Your task to perform on an android device: Clear the cart on amazon.com. Search for dell xps on amazon.com, select the first entry, and add it to the cart. Image 0: 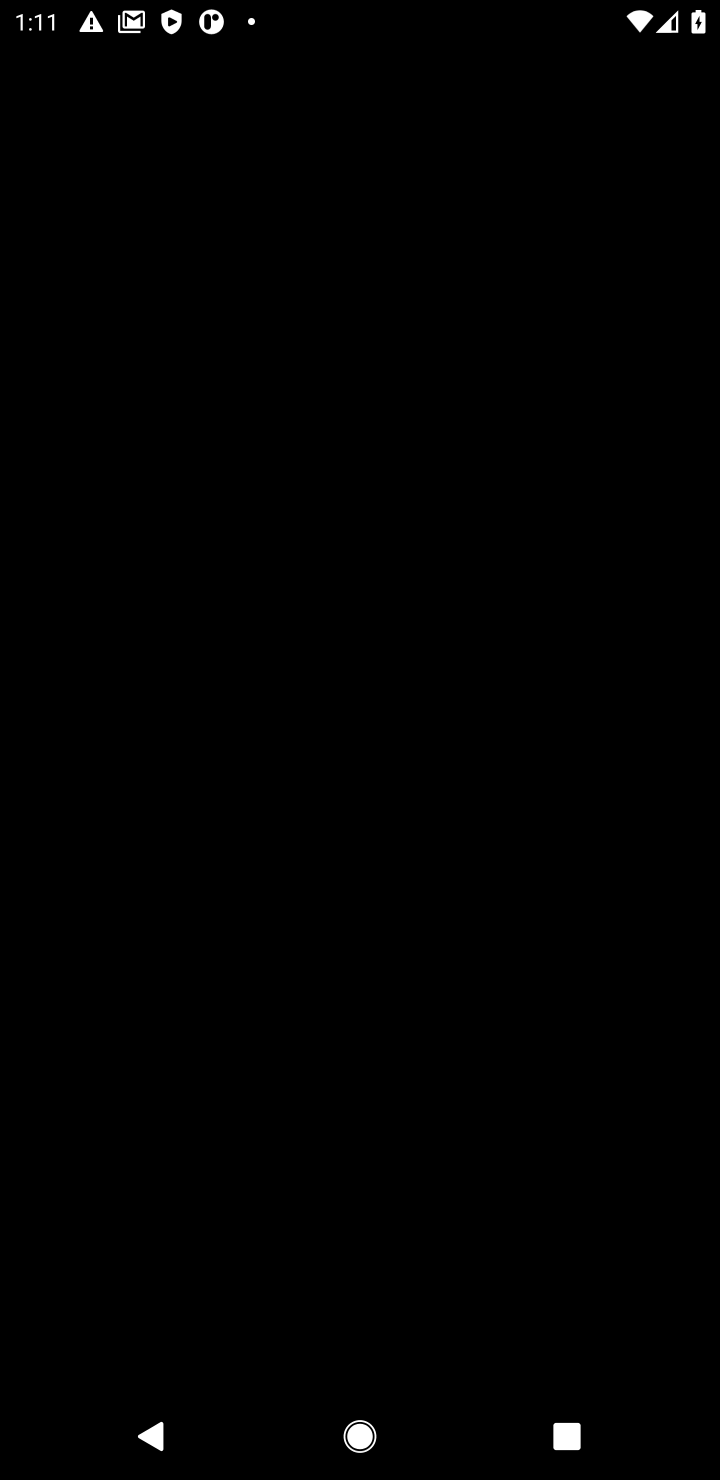
Step 0: press home button
Your task to perform on an android device: Clear the cart on amazon.com. Search for dell xps on amazon.com, select the first entry, and add it to the cart. Image 1: 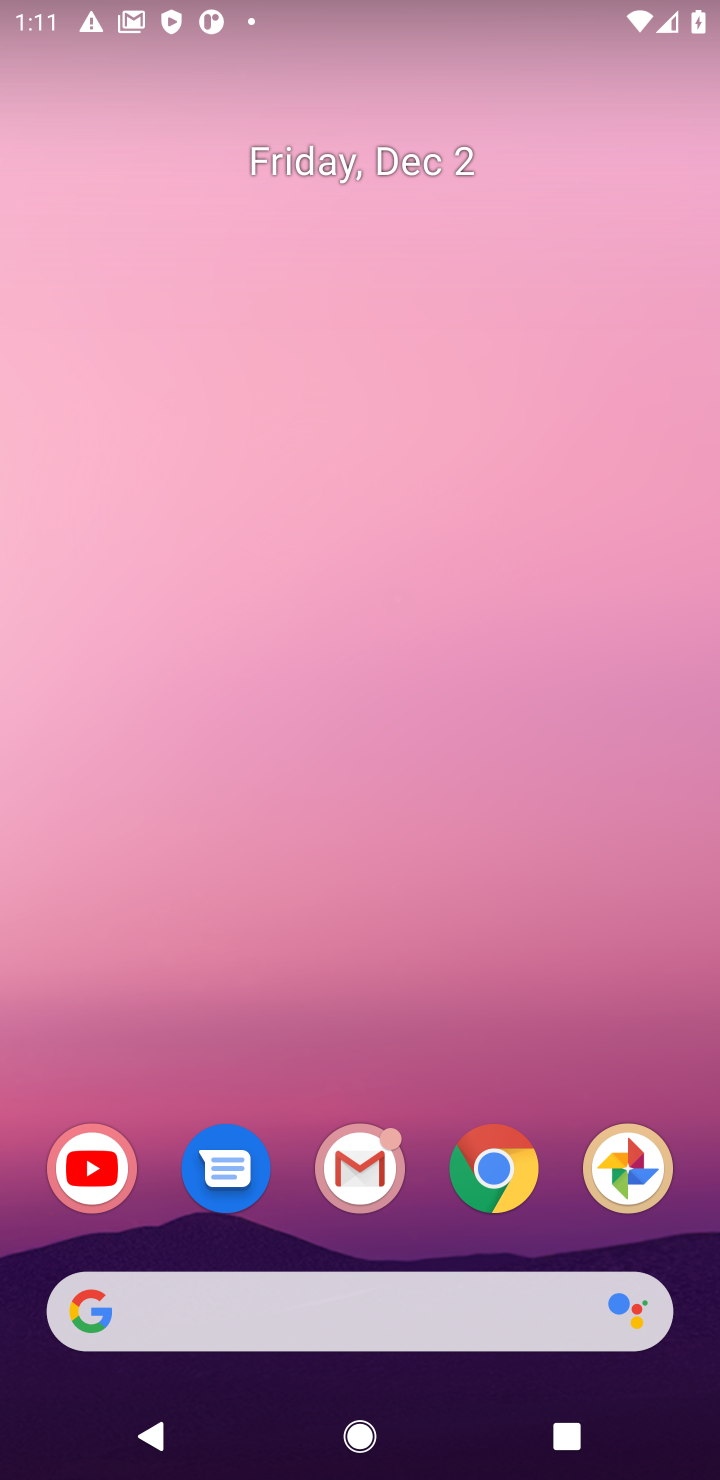
Step 1: click (499, 1184)
Your task to perform on an android device: Clear the cart on amazon.com. Search for dell xps on amazon.com, select the first entry, and add it to the cart. Image 2: 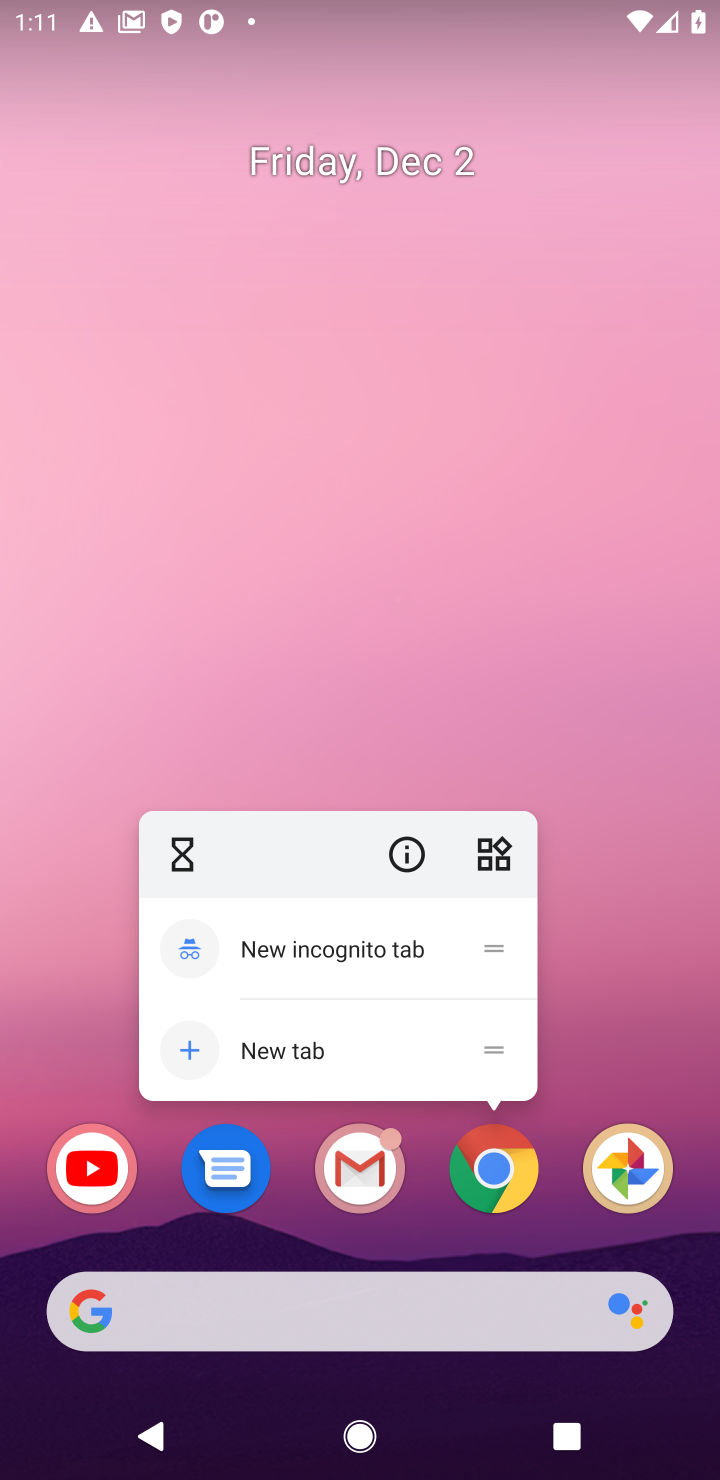
Step 2: click (499, 1184)
Your task to perform on an android device: Clear the cart on amazon.com. Search for dell xps on amazon.com, select the first entry, and add it to the cart. Image 3: 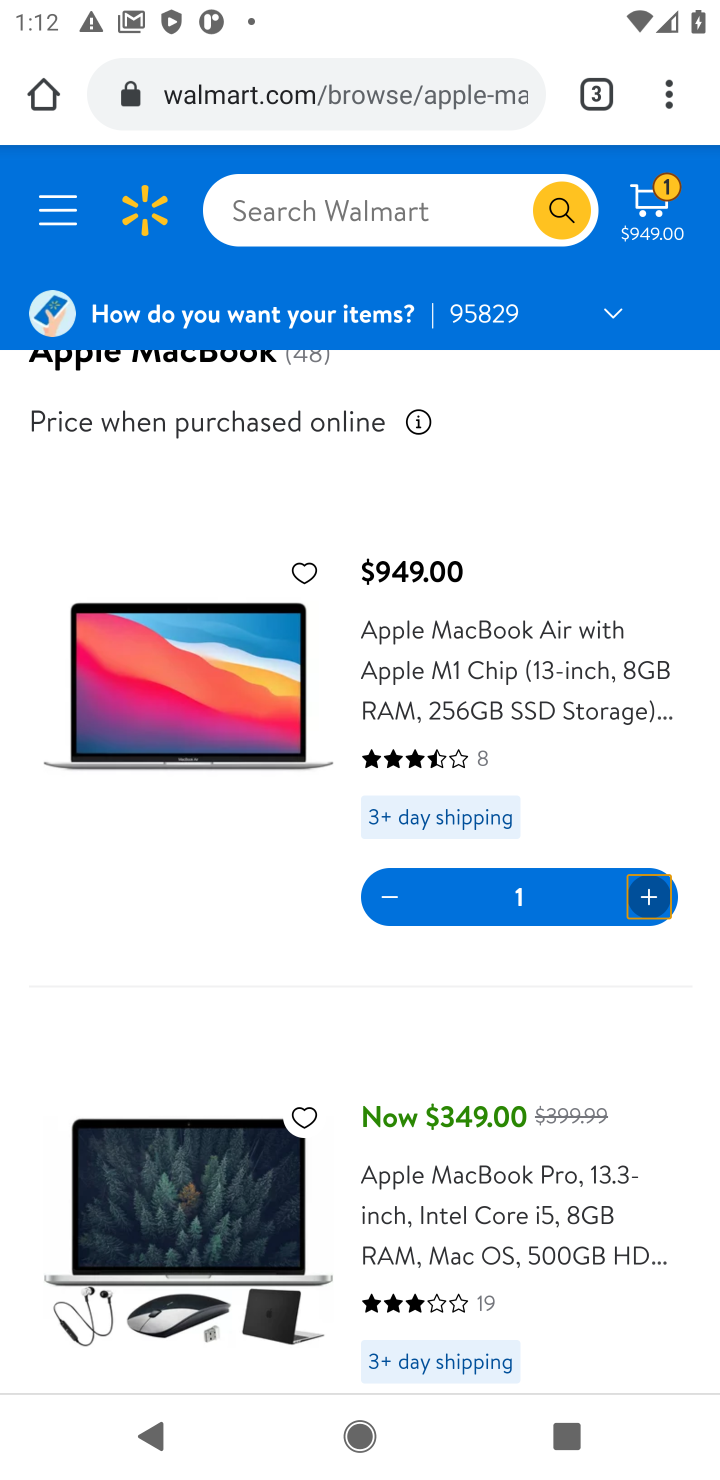
Step 3: click (336, 103)
Your task to perform on an android device: Clear the cart on amazon.com. Search for dell xps on amazon.com, select the first entry, and add it to the cart. Image 4: 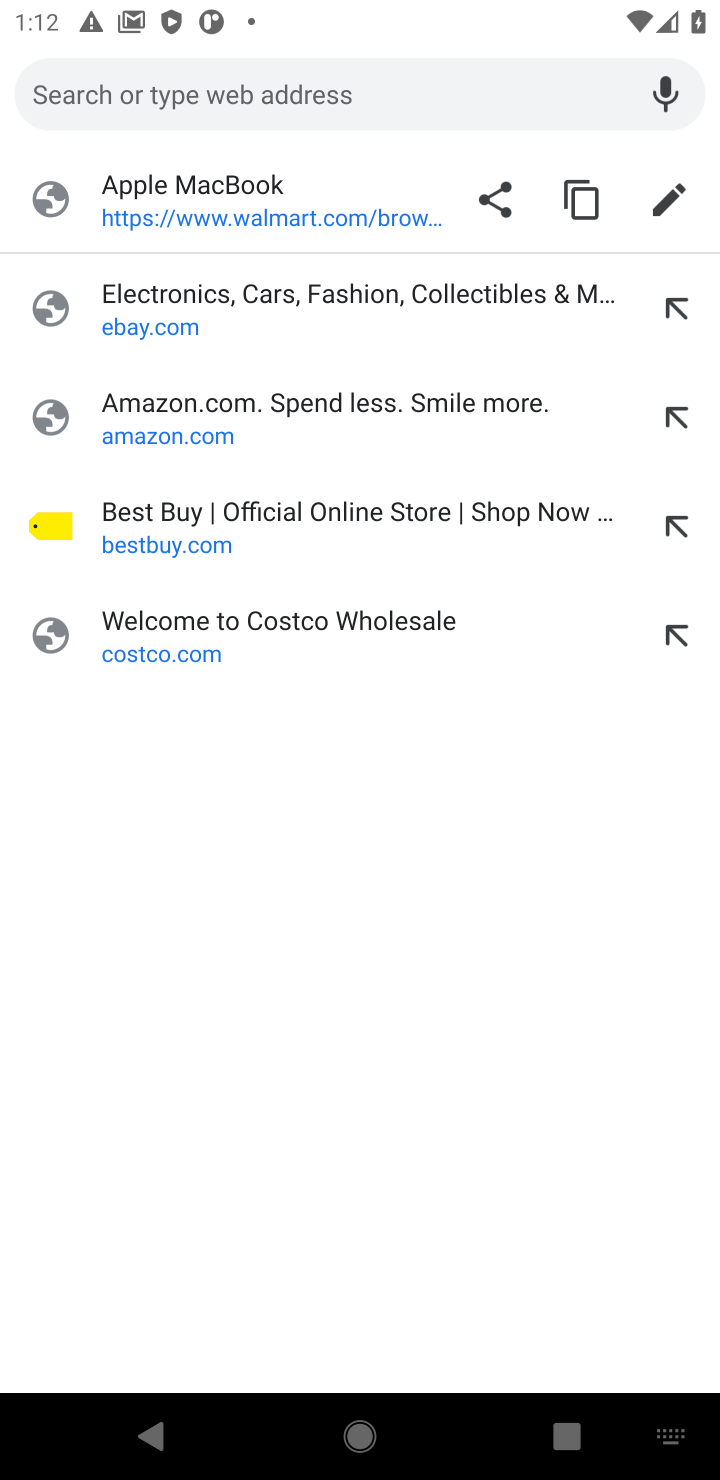
Step 4: click (150, 418)
Your task to perform on an android device: Clear the cart on amazon.com. Search for dell xps on amazon.com, select the first entry, and add it to the cart. Image 5: 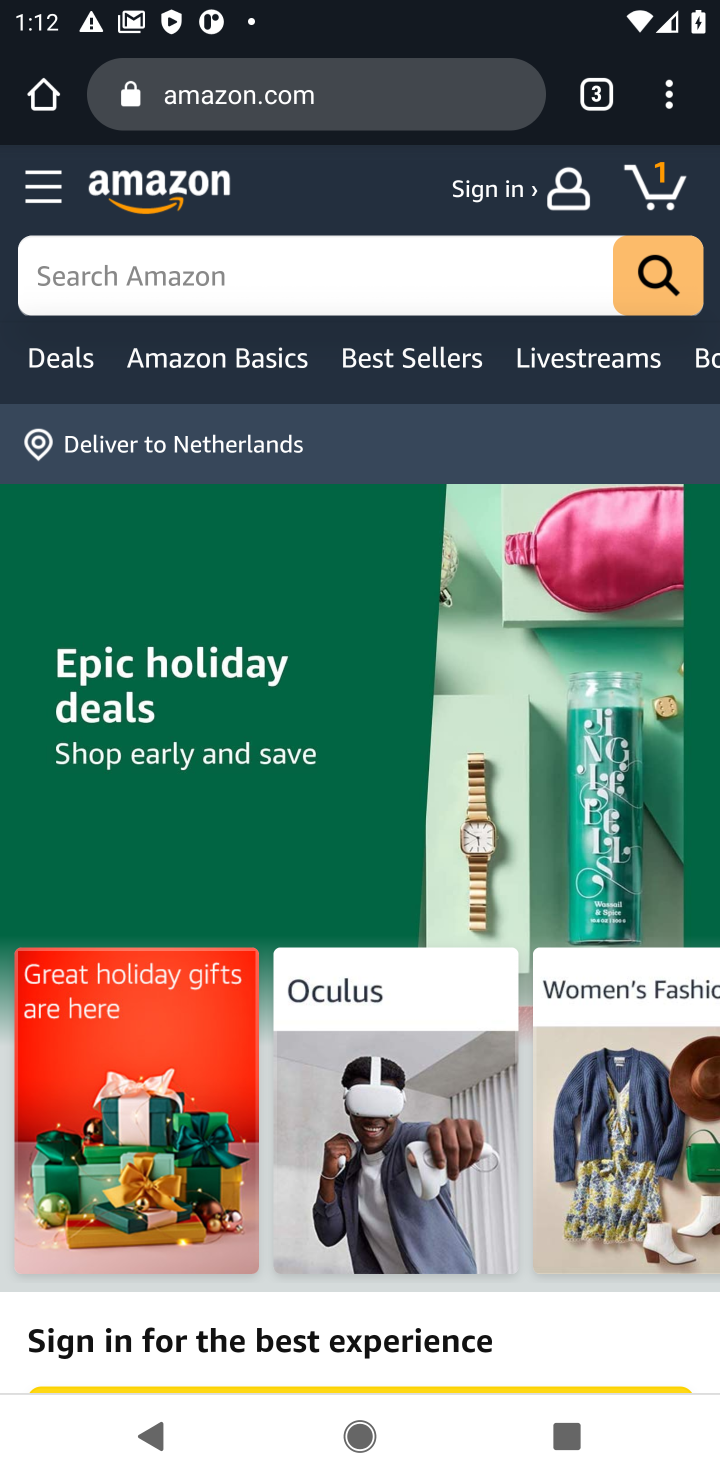
Step 5: click (658, 173)
Your task to perform on an android device: Clear the cart on amazon.com. Search for dell xps on amazon.com, select the first entry, and add it to the cart. Image 6: 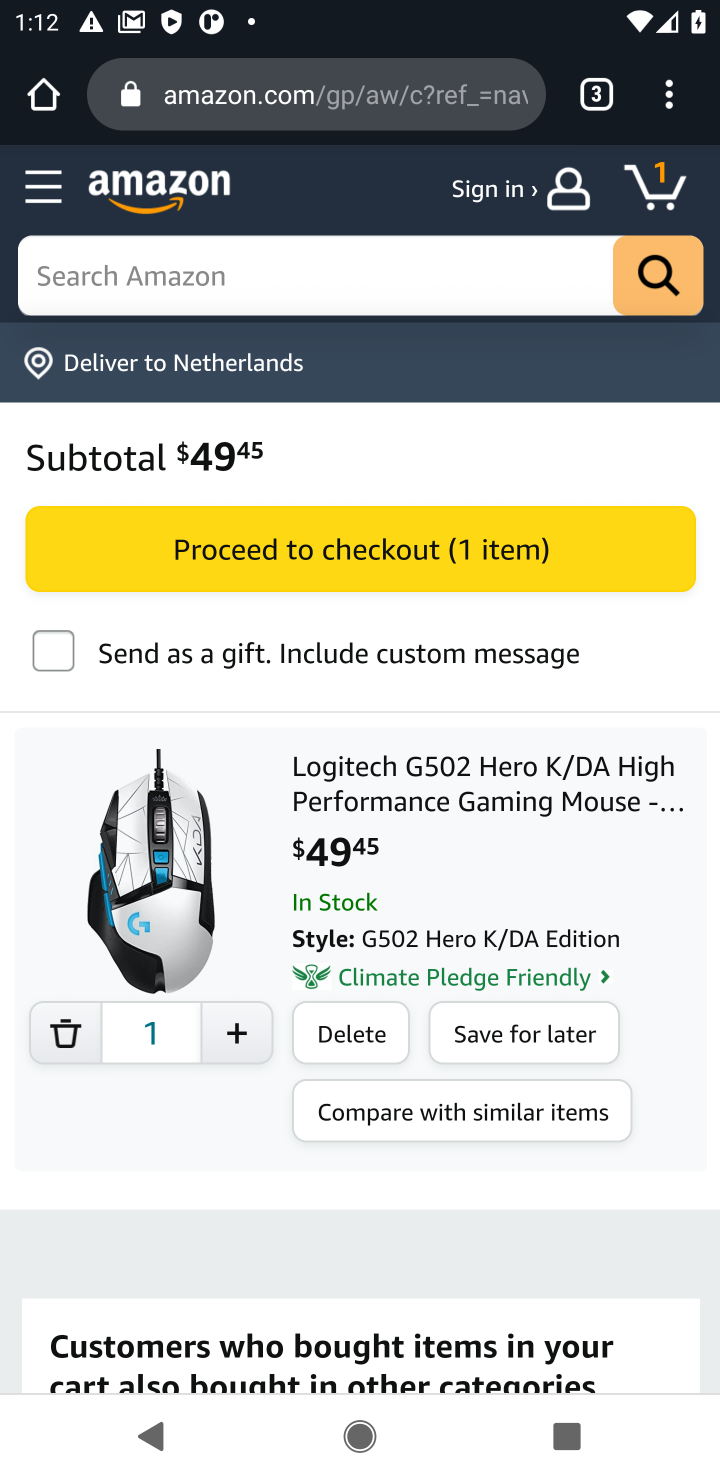
Step 6: click (343, 1041)
Your task to perform on an android device: Clear the cart on amazon.com. Search for dell xps on amazon.com, select the first entry, and add it to the cart. Image 7: 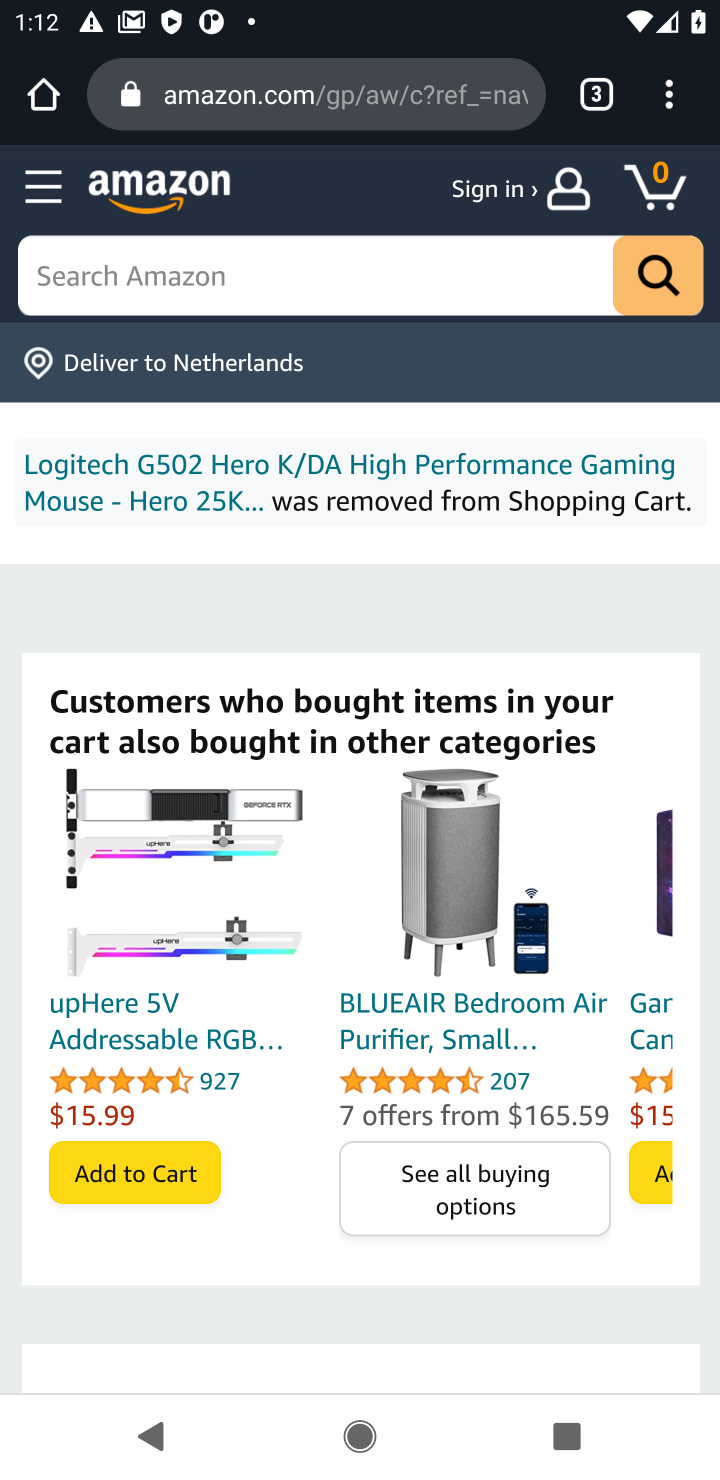
Step 7: click (216, 298)
Your task to perform on an android device: Clear the cart on amazon.com. Search for dell xps on amazon.com, select the first entry, and add it to the cart. Image 8: 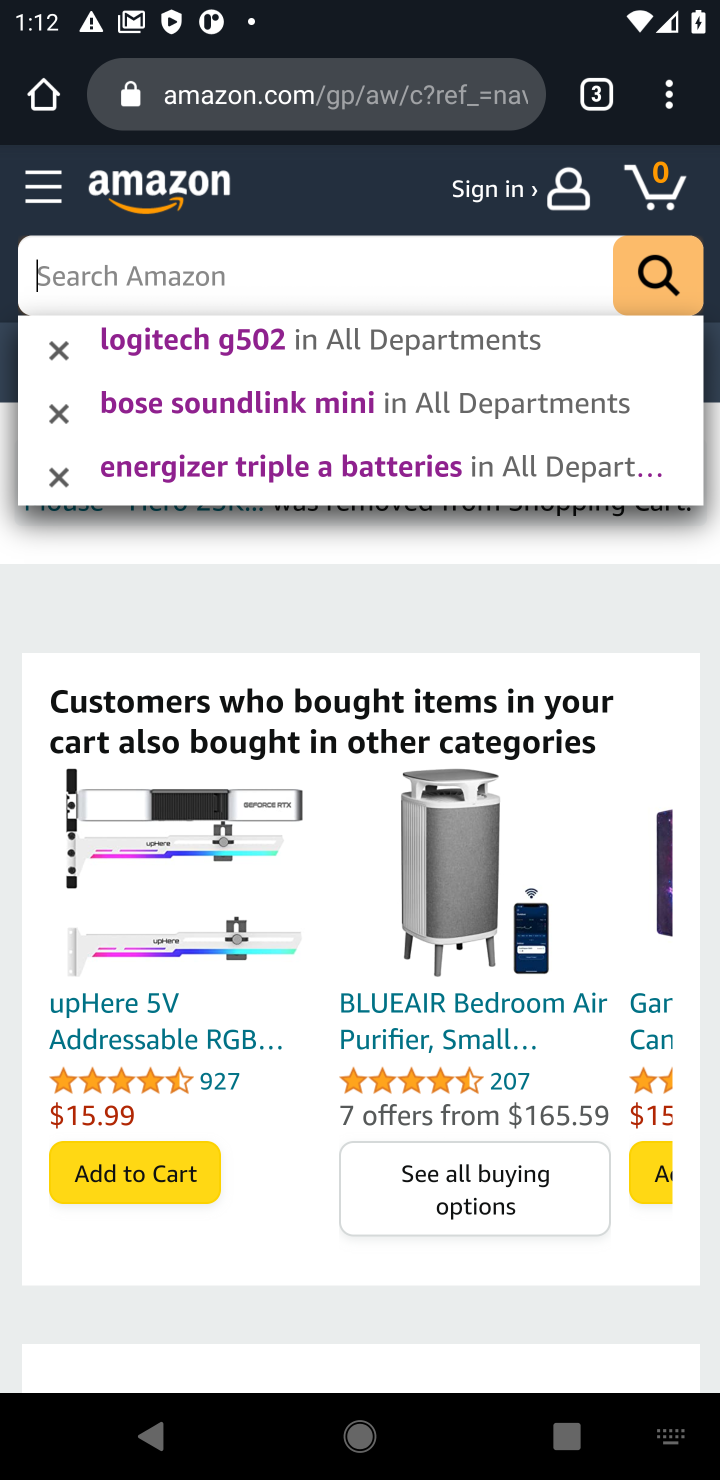
Step 8: type "dell xps"
Your task to perform on an android device: Clear the cart on amazon.com. Search for dell xps on amazon.com, select the first entry, and add it to the cart. Image 9: 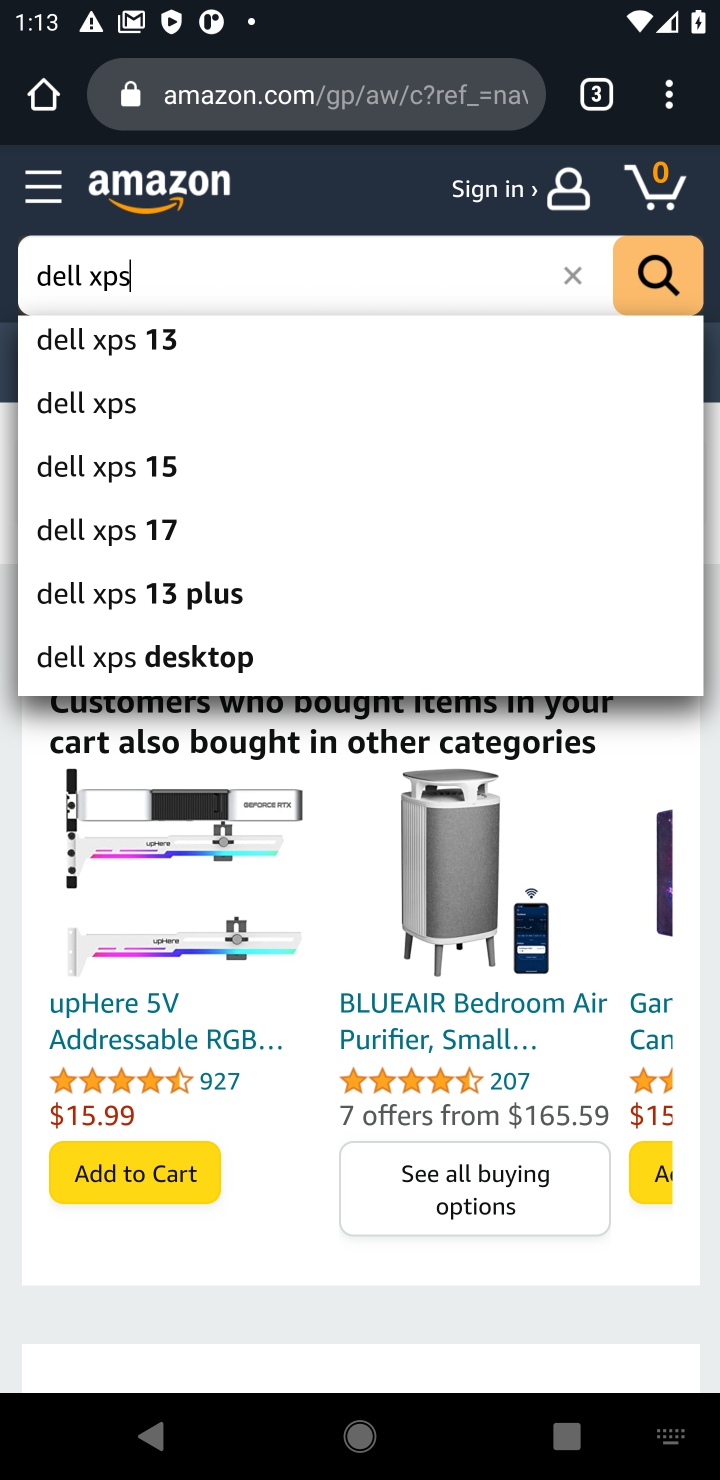
Step 9: click (84, 421)
Your task to perform on an android device: Clear the cart on amazon.com. Search for dell xps on amazon.com, select the first entry, and add it to the cart. Image 10: 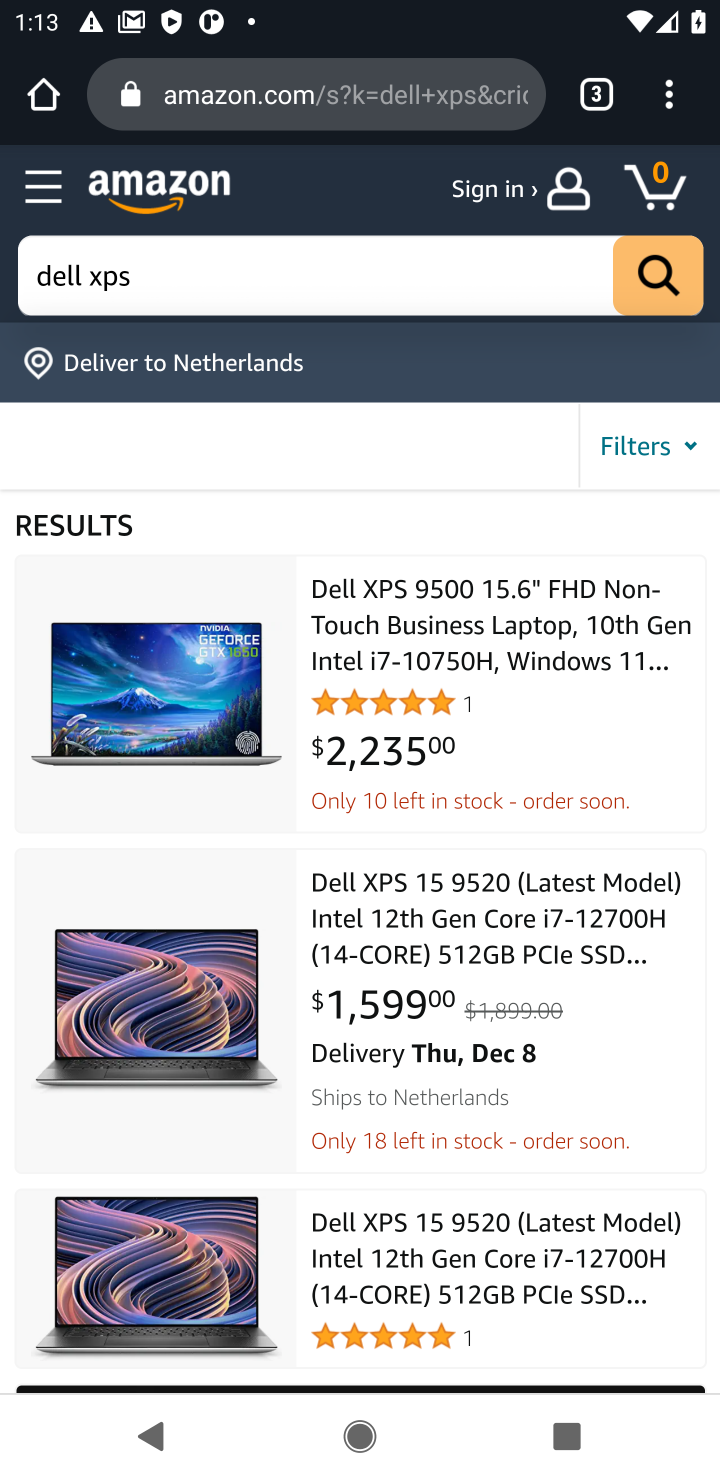
Step 10: click (434, 656)
Your task to perform on an android device: Clear the cart on amazon.com. Search for dell xps on amazon.com, select the first entry, and add it to the cart. Image 11: 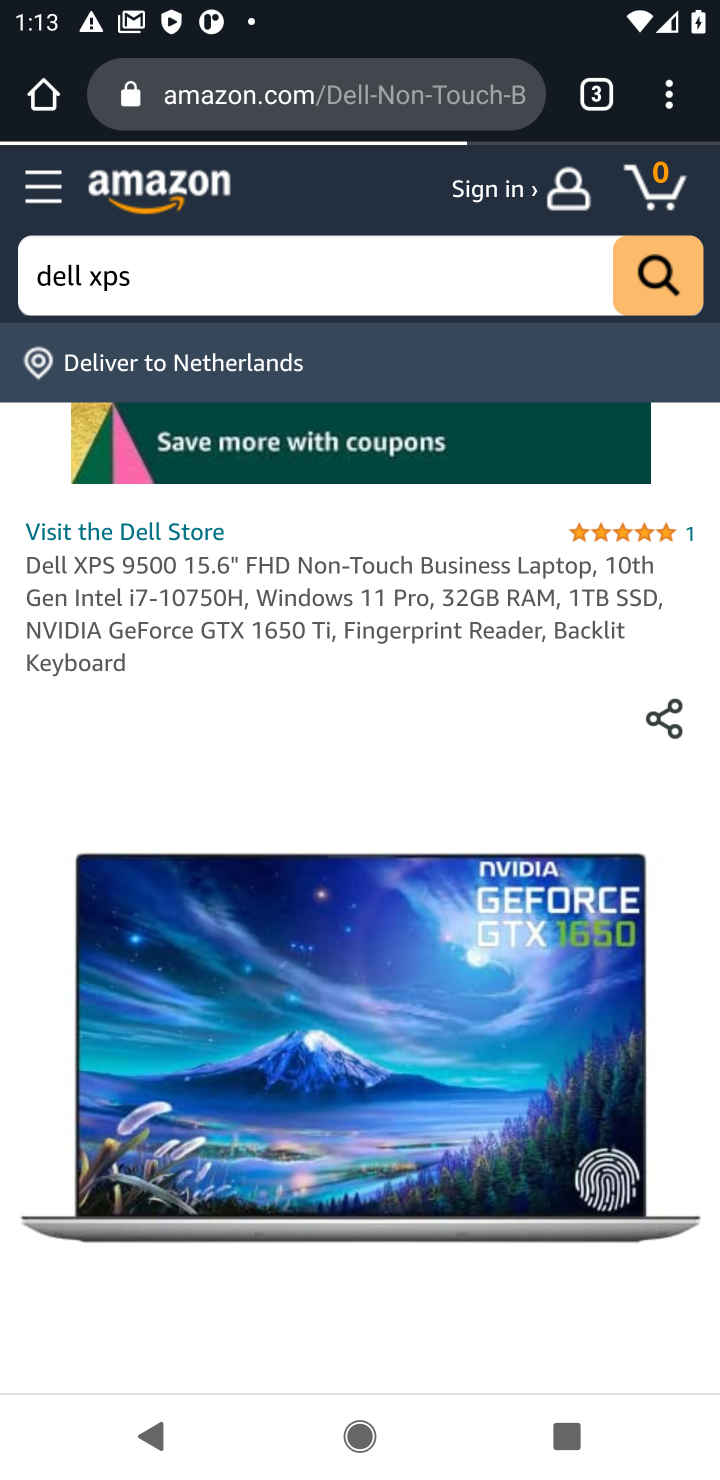
Step 11: drag from (383, 845) to (383, 547)
Your task to perform on an android device: Clear the cart on amazon.com. Search for dell xps on amazon.com, select the first entry, and add it to the cart. Image 12: 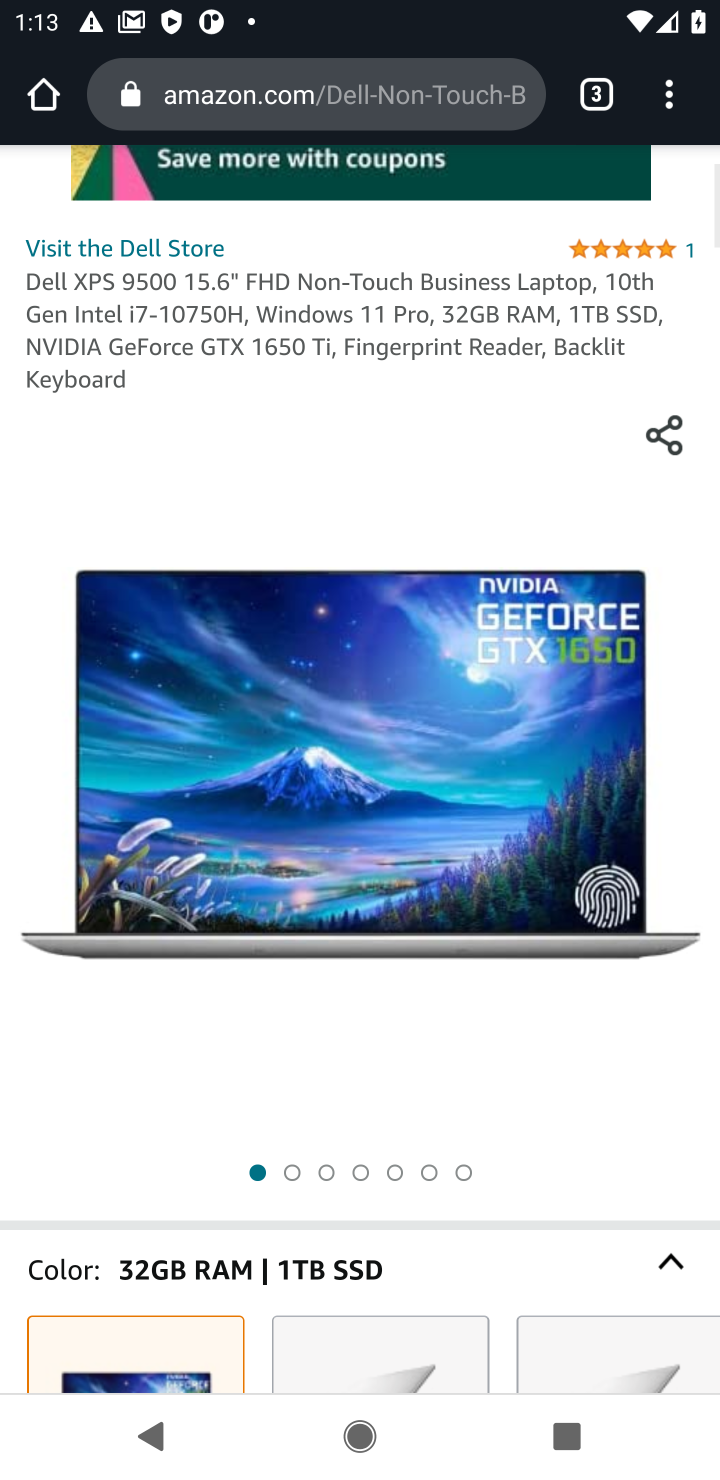
Step 12: drag from (385, 1033) to (329, 408)
Your task to perform on an android device: Clear the cart on amazon.com. Search for dell xps on amazon.com, select the first entry, and add it to the cart. Image 13: 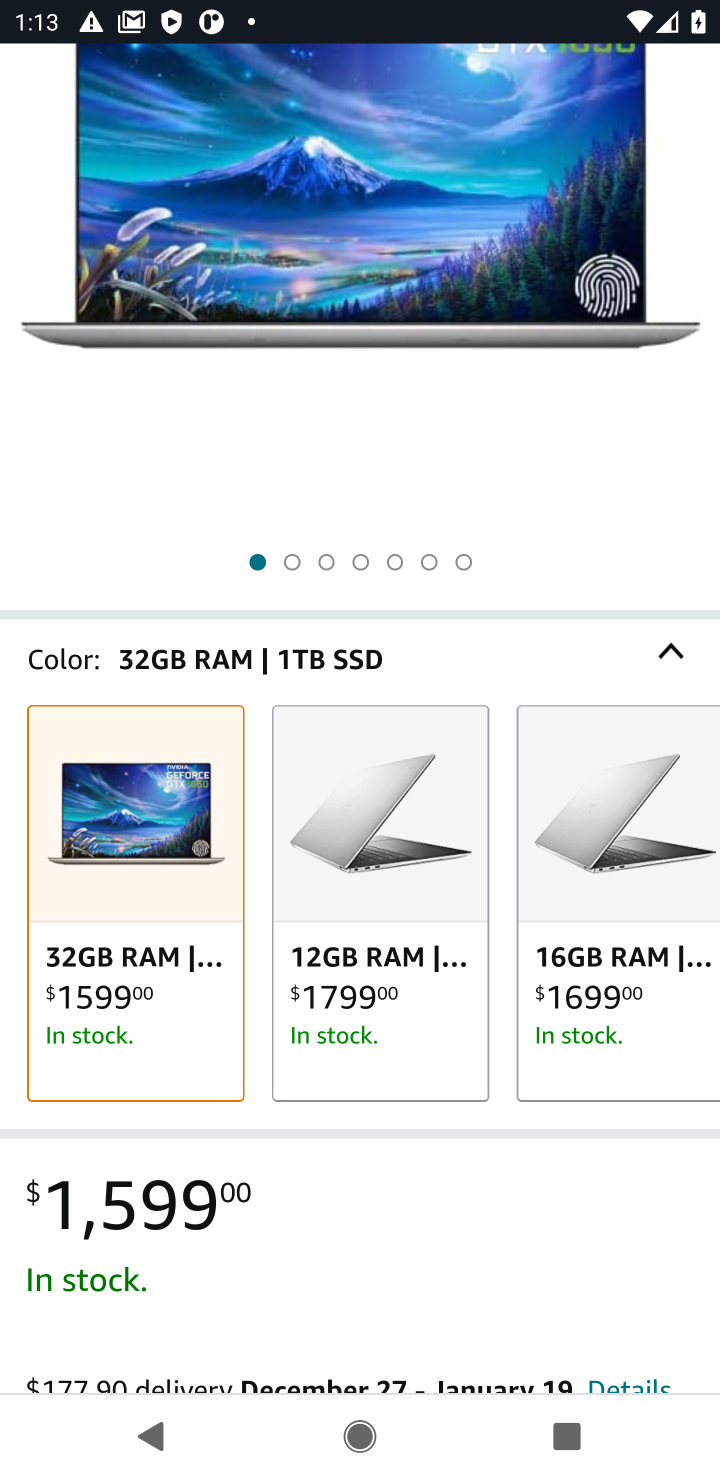
Step 13: drag from (546, 1163) to (471, 487)
Your task to perform on an android device: Clear the cart on amazon.com. Search for dell xps on amazon.com, select the first entry, and add it to the cart. Image 14: 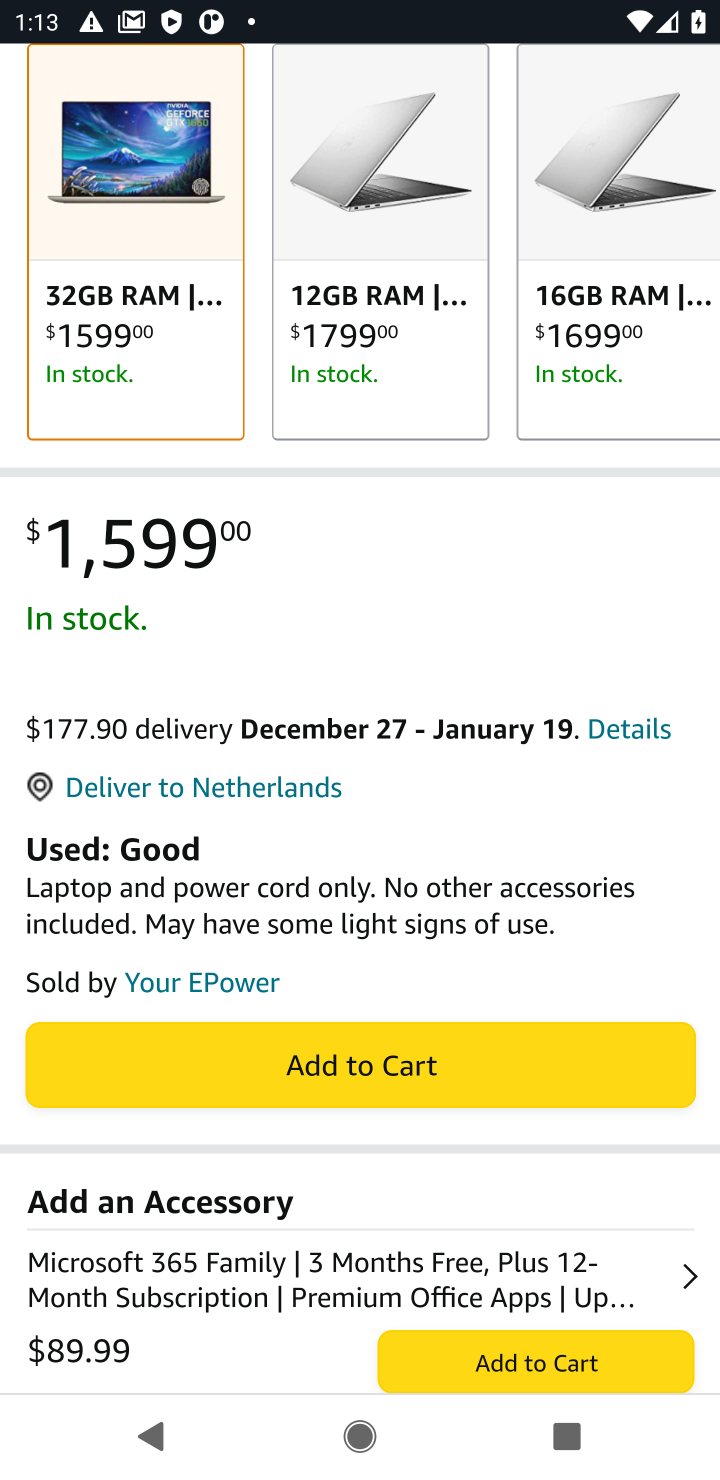
Step 14: click (352, 1067)
Your task to perform on an android device: Clear the cart on amazon.com. Search for dell xps on amazon.com, select the first entry, and add it to the cart. Image 15: 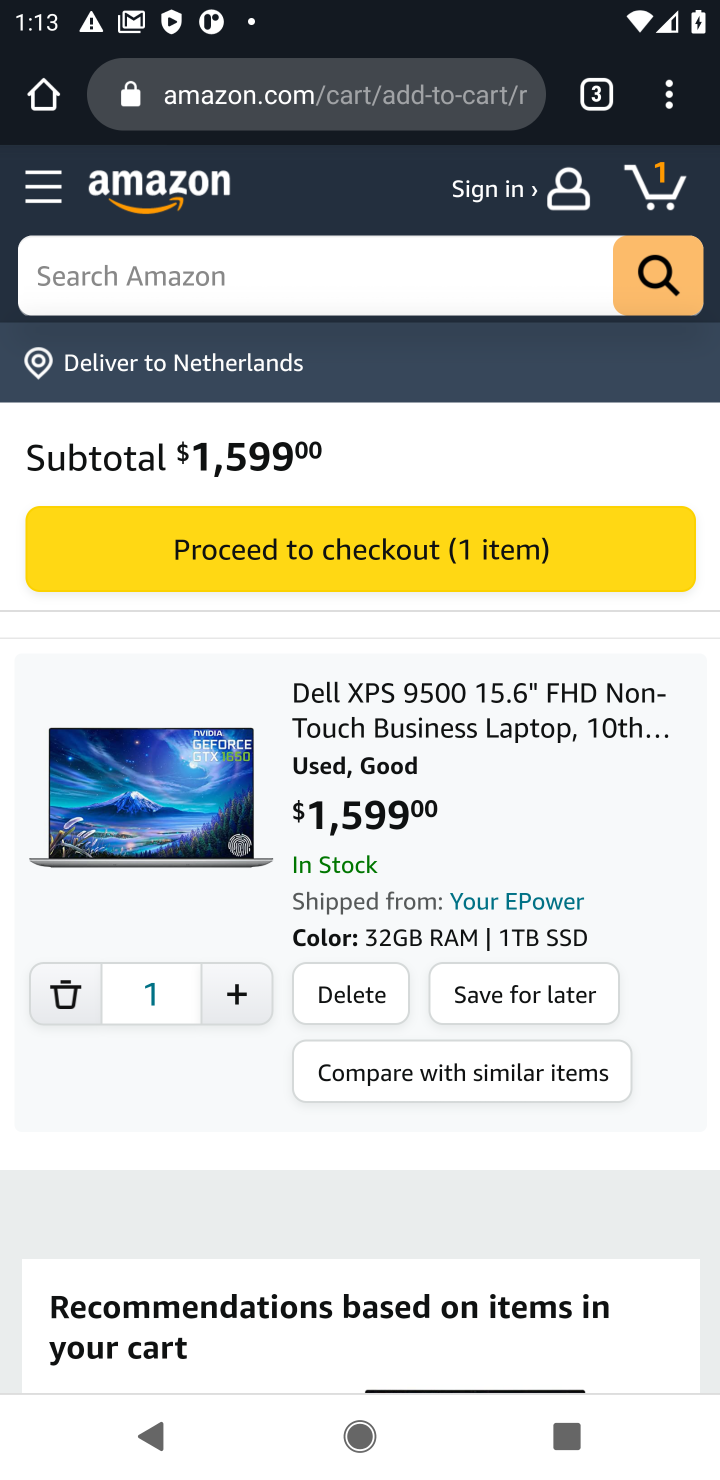
Step 15: task complete